Your task to perform on an android device: Open location settings Image 0: 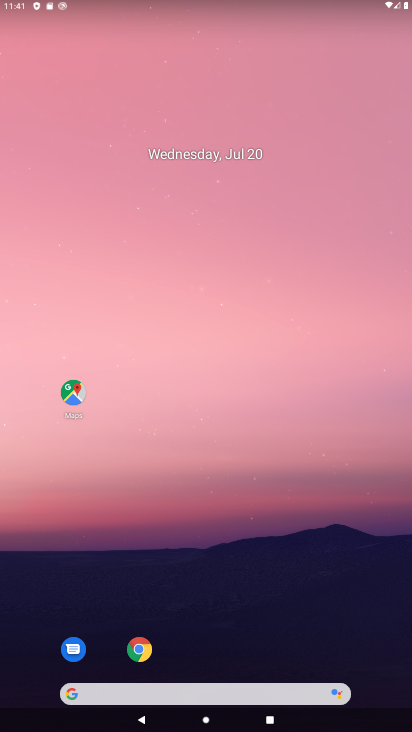
Step 0: drag from (259, 542) to (231, 93)
Your task to perform on an android device: Open location settings Image 1: 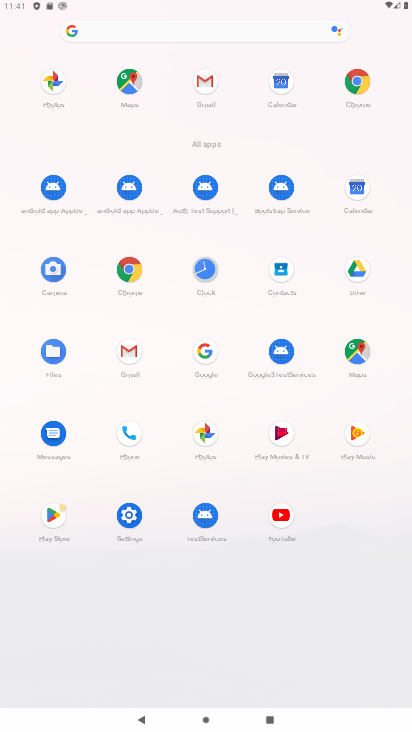
Step 1: click (121, 514)
Your task to perform on an android device: Open location settings Image 2: 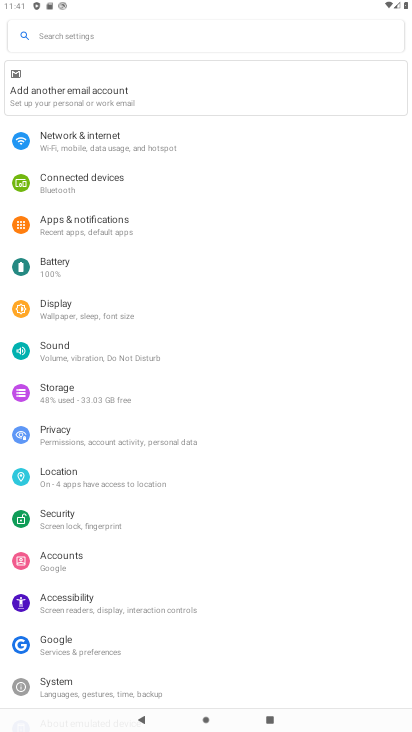
Step 2: click (46, 481)
Your task to perform on an android device: Open location settings Image 3: 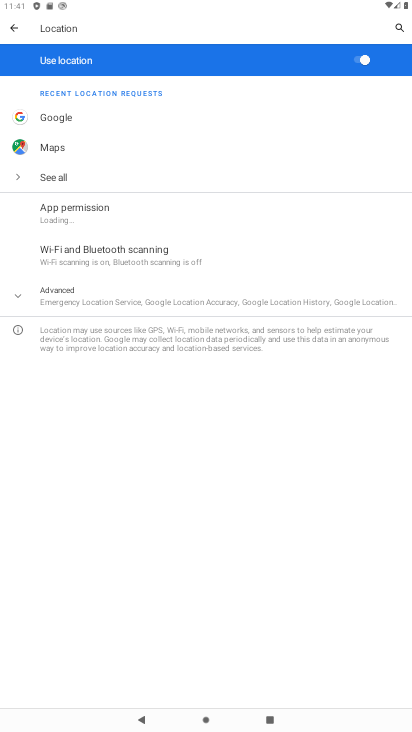
Step 3: task complete